Your task to perform on an android device: Is it going to rain this weekend? Image 0: 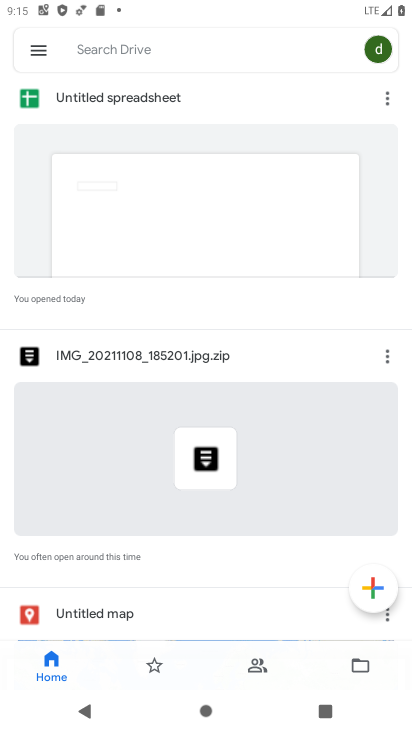
Step 0: press home button
Your task to perform on an android device: Is it going to rain this weekend? Image 1: 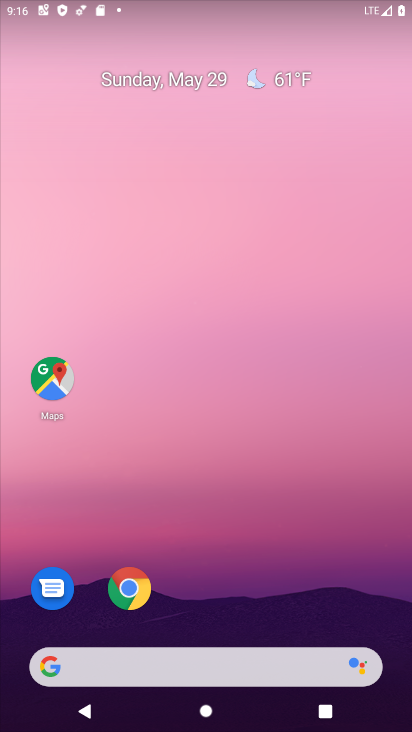
Step 1: drag from (350, 605) to (235, 146)
Your task to perform on an android device: Is it going to rain this weekend? Image 2: 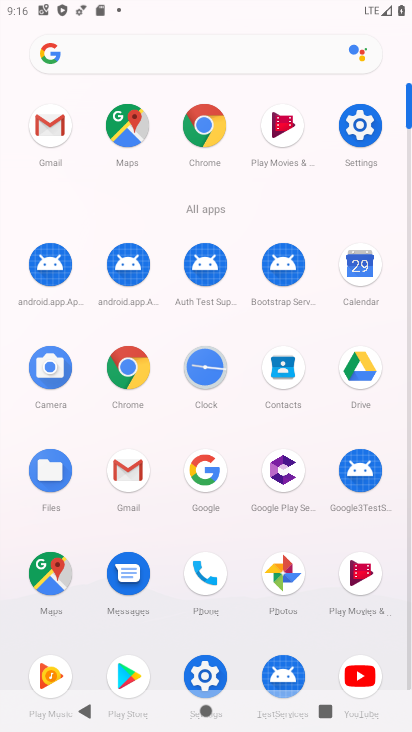
Step 2: click (206, 125)
Your task to perform on an android device: Is it going to rain this weekend? Image 3: 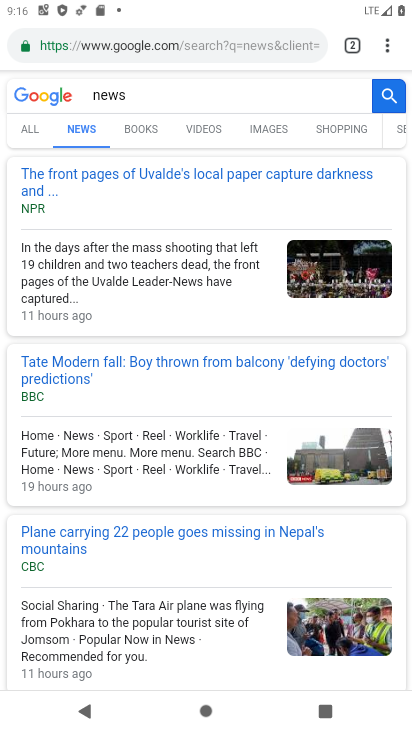
Step 3: click (211, 98)
Your task to perform on an android device: Is it going to rain this weekend? Image 4: 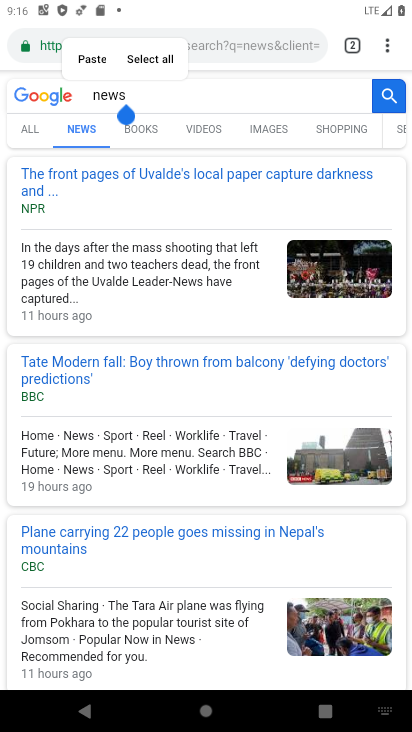
Step 4: click (245, 52)
Your task to perform on an android device: Is it going to rain this weekend? Image 5: 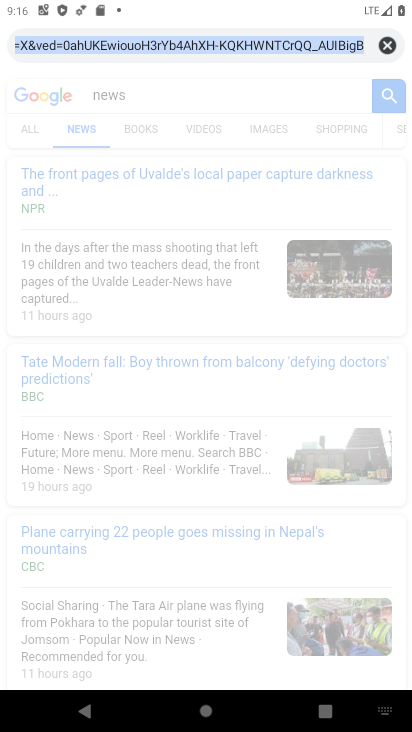
Step 5: type "weather"
Your task to perform on an android device: Is it going to rain this weekend? Image 6: 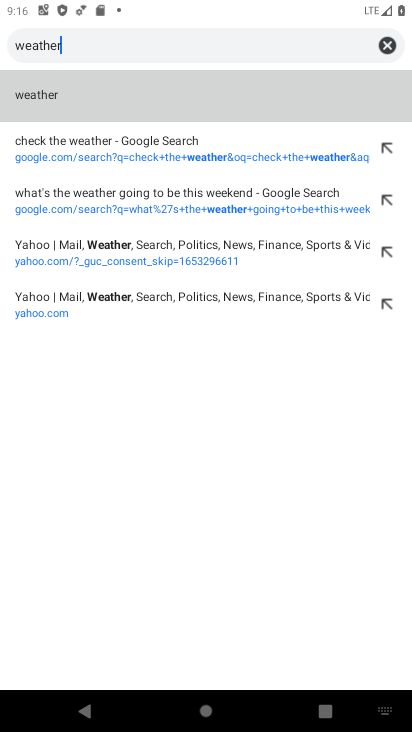
Step 6: click (38, 102)
Your task to perform on an android device: Is it going to rain this weekend? Image 7: 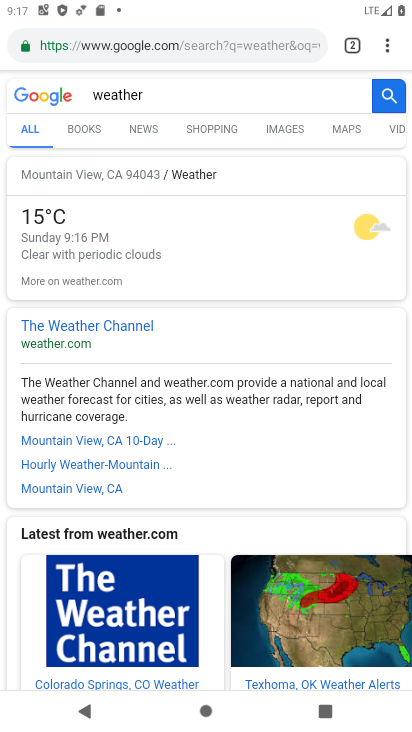
Step 7: click (87, 323)
Your task to perform on an android device: Is it going to rain this weekend? Image 8: 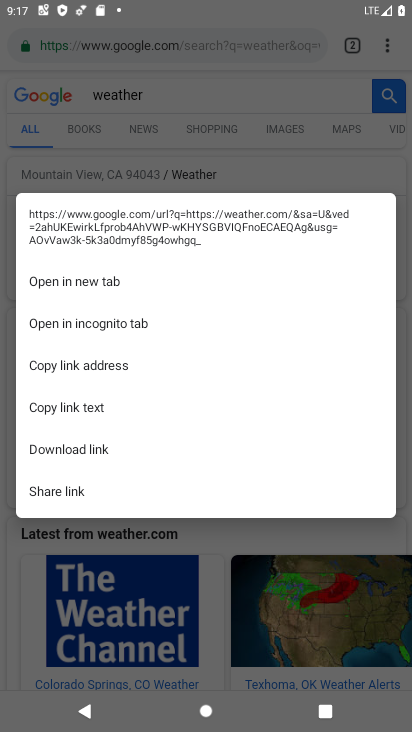
Step 8: click (246, 133)
Your task to perform on an android device: Is it going to rain this weekend? Image 9: 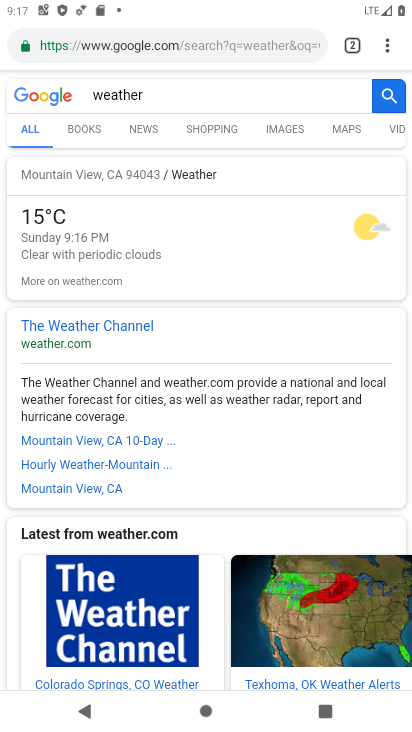
Step 9: click (89, 316)
Your task to perform on an android device: Is it going to rain this weekend? Image 10: 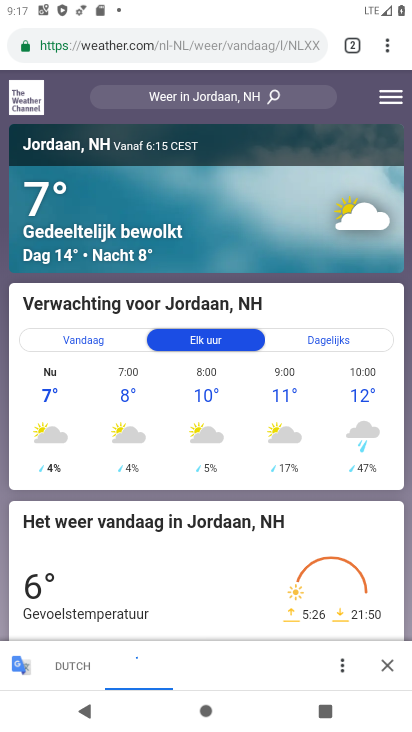
Step 10: click (383, 661)
Your task to perform on an android device: Is it going to rain this weekend? Image 11: 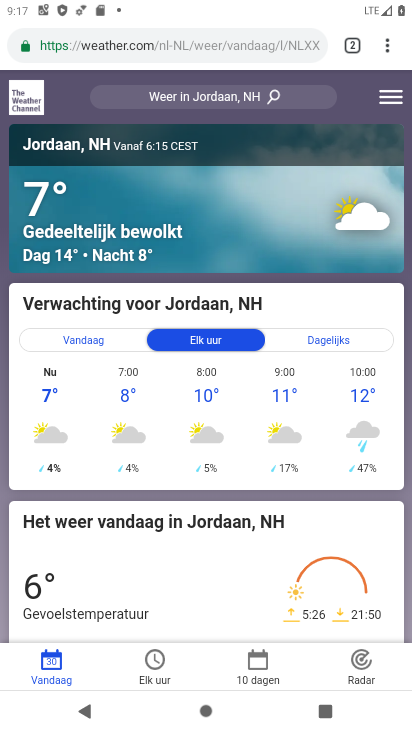
Step 11: click (282, 670)
Your task to perform on an android device: Is it going to rain this weekend? Image 12: 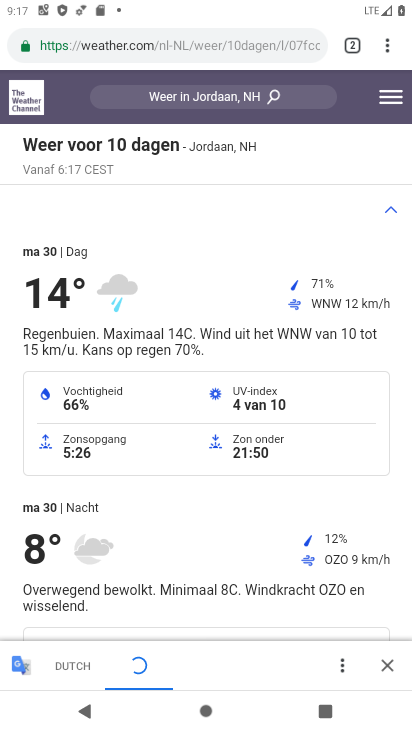
Step 12: task complete